Your task to perform on an android device: check android version Image 0: 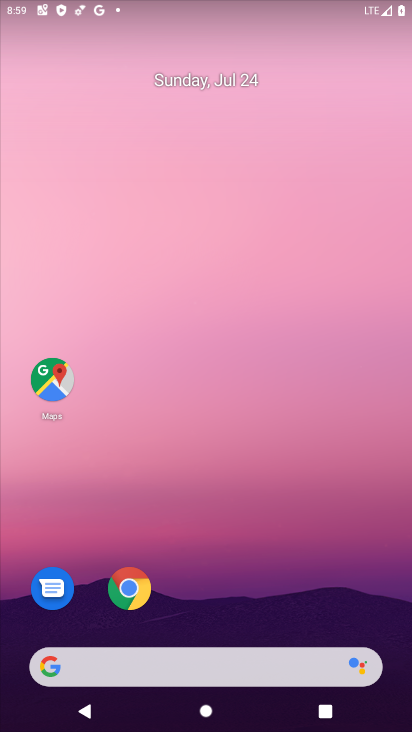
Step 0: drag from (166, 663) to (155, 104)
Your task to perform on an android device: check android version Image 1: 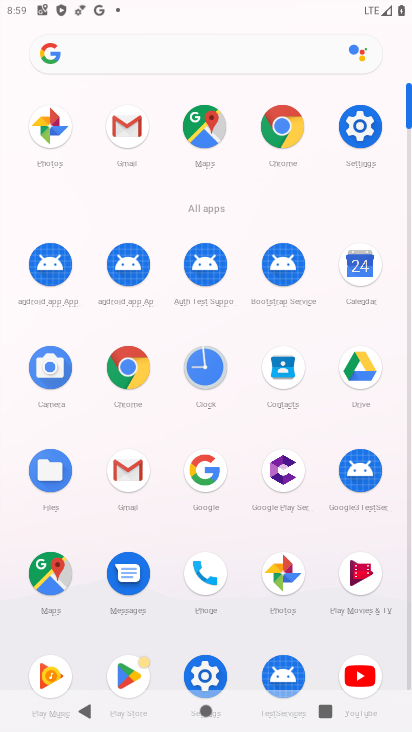
Step 1: click (365, 131)
Your task to perform on an android device: check android version Image 2: 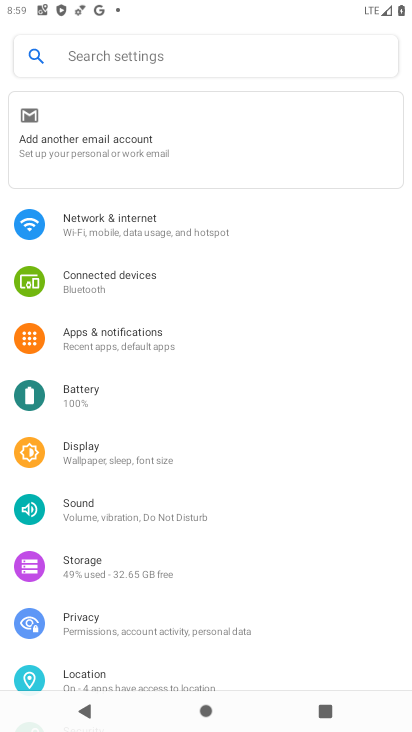
Step 2: drag from (205, 546) to (207, 4)
Your task to perform on an android device: check android version Image 3: 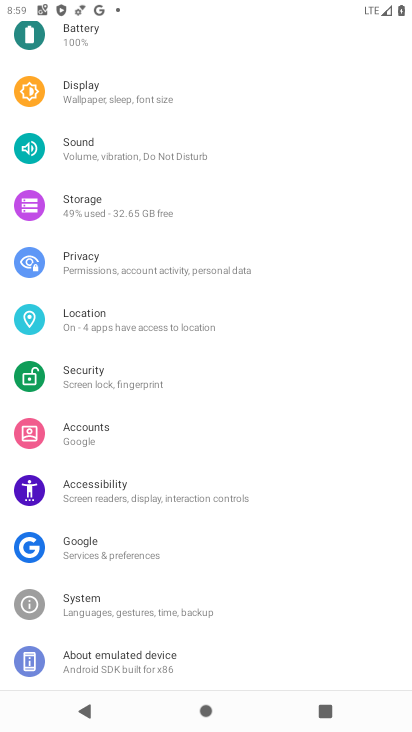
Step 3: click (156, 654)
Your task to perform on an android device: check android version Image 4: 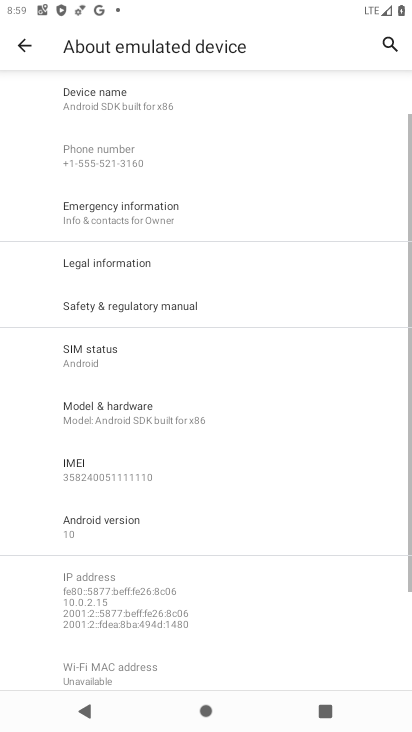
Step 4: click (122, 531)
Your task to perform on an android device: check android version Image 5: 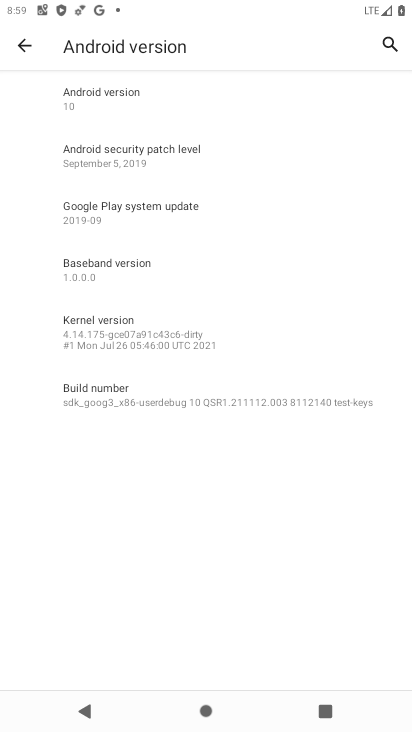
Step 5: task complete